Your task to perform on an android device: Add "duracell triple a" to the cart on costco Image 0: 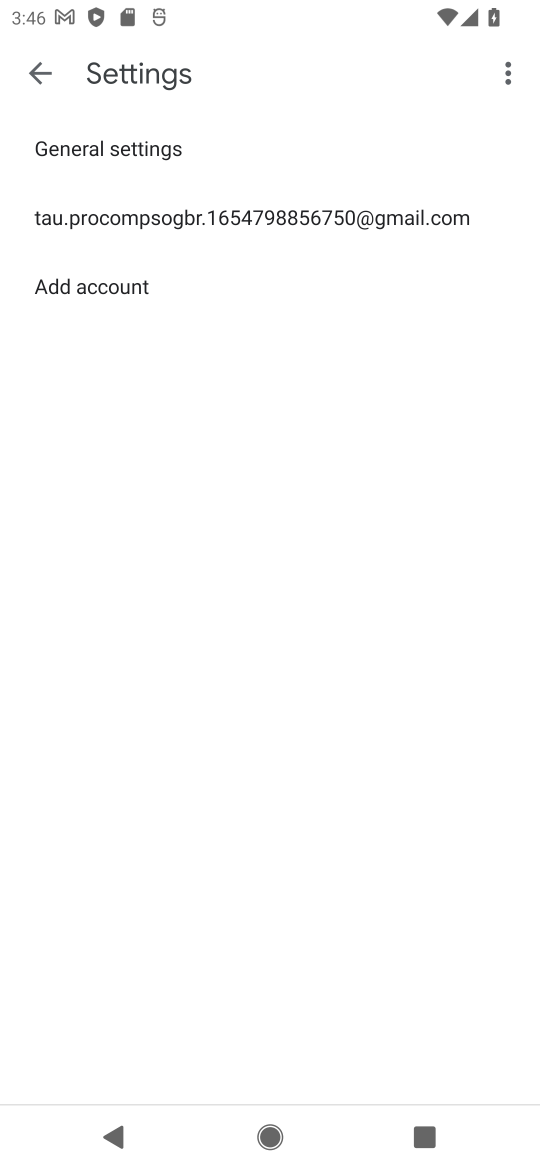
Step 0: press home button
Your task to perform on an android device: Add "duracell triple a" to the cart on costco Image 1: 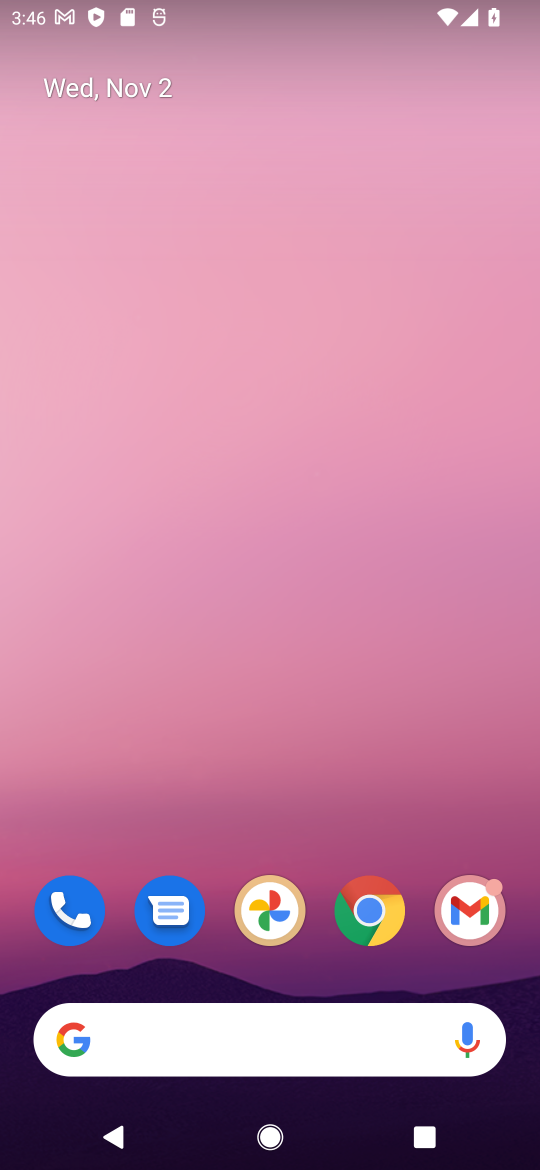
Step 1: click (368, 919)
Your task to perform on an android device: Add "duracell triple a" to the cart on costco Image 2: 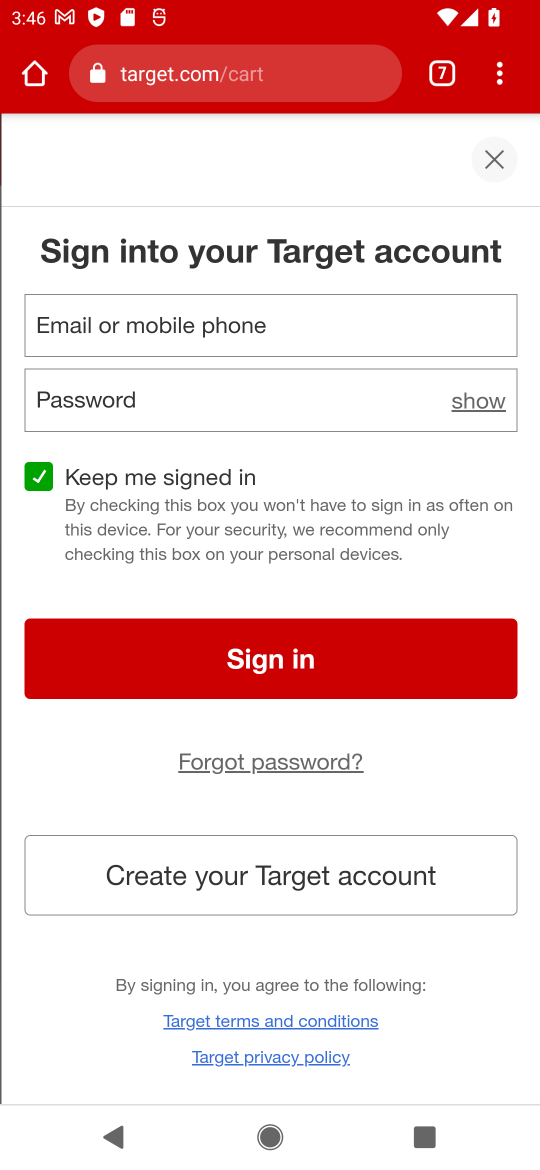
Step 2: click (448, 81)
Your task to perform on an android device: Add "duracell triple a" to the cart on costco Image 3: 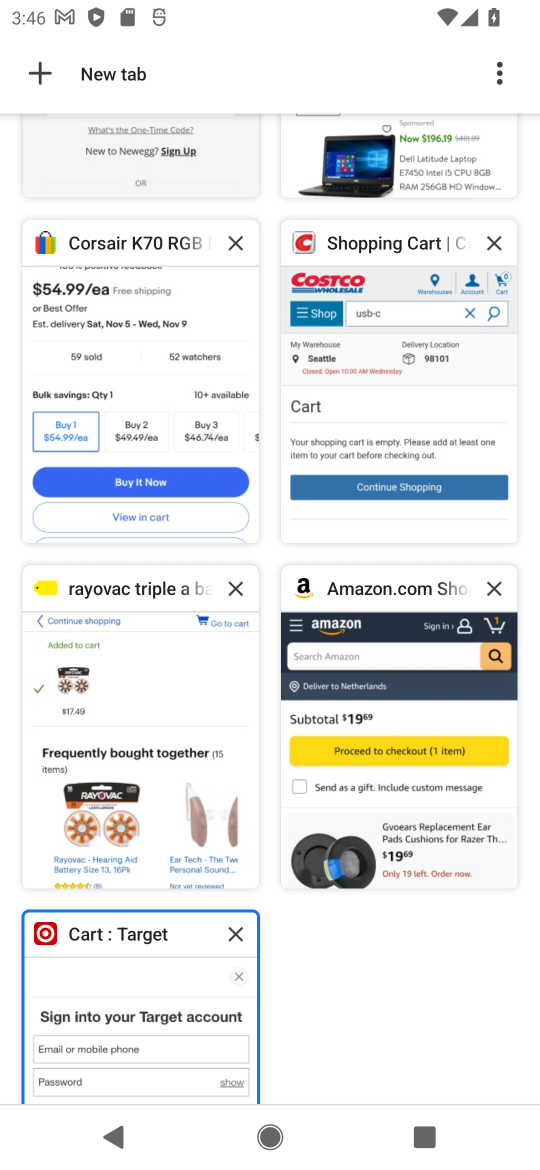
Step 3: click (373, 310)
Your task to perform on an android device: Add "duracell triple a" to the cart on costco Image 4: 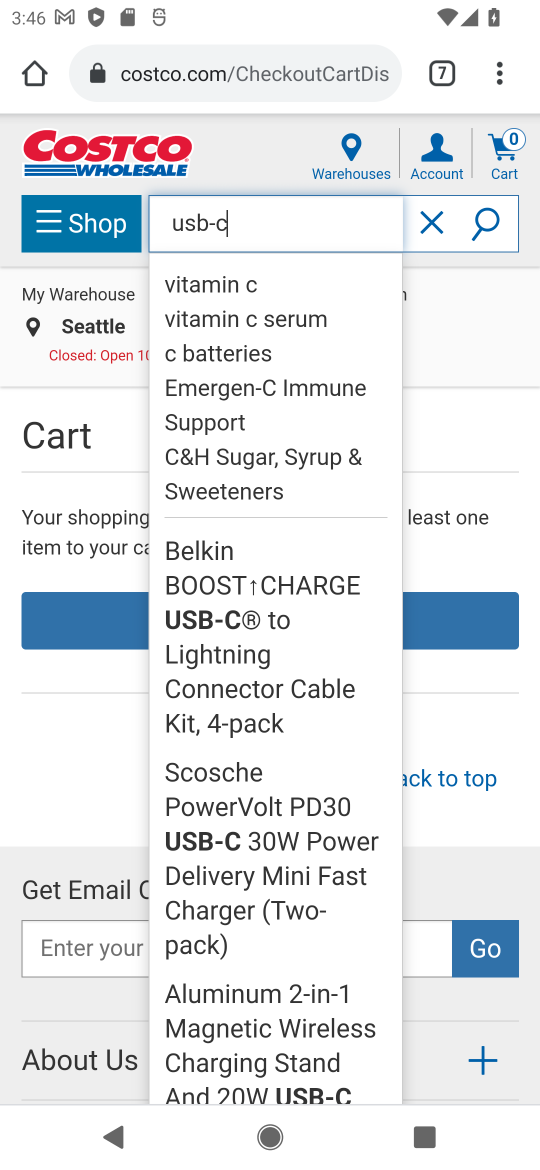
Step 4: click (431, 230)
Your task to perform on an android device: Add "duracell triple a" to the cart on costco Image 5: 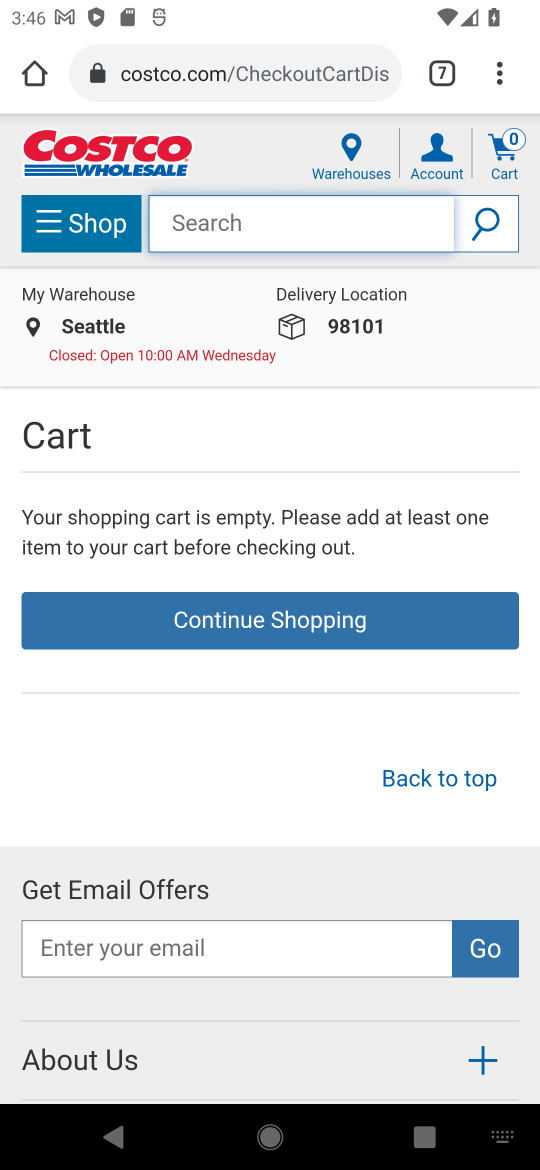
Step 5: type "duracell triple a battery"
Your task to perform on an android device: Add "duracell triple a" to the cart on costco Image 6: 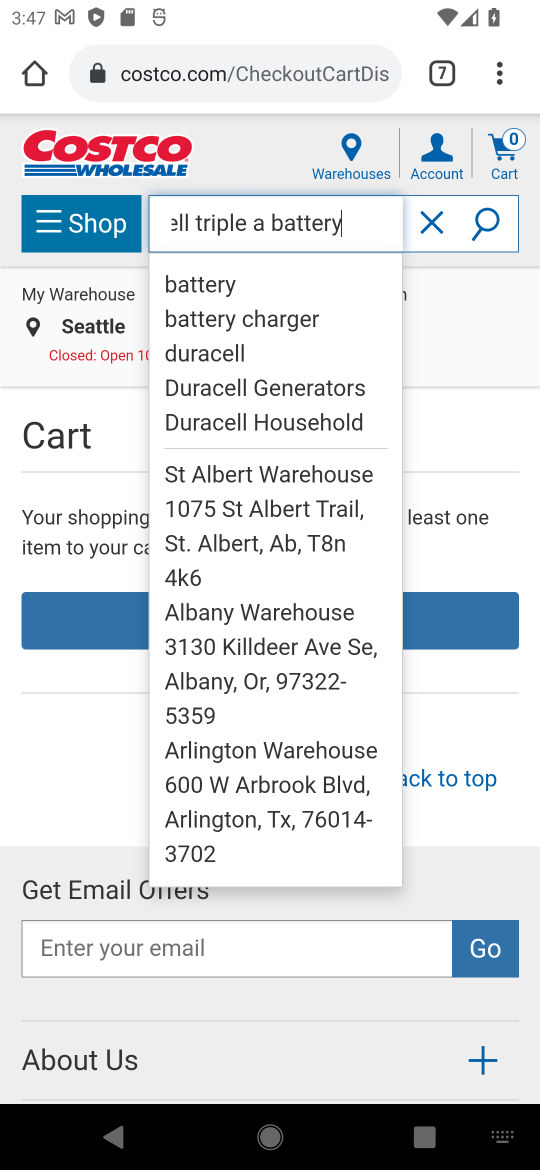
Step 6: click (205, 346)
Your task to perform on an android device: Add "duracell triple a" to the cart on costco Image 7: 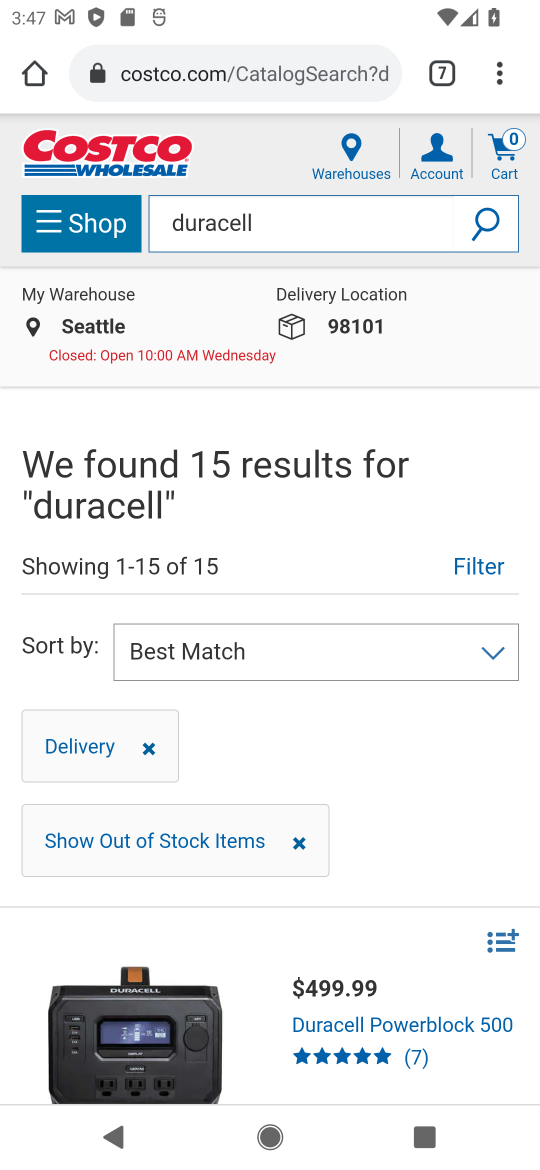
Step 7: drag from (387, 924) to (435, 338)
Your task to perform on an android device: Add "duracell triple a" to the cart on costco Image 8: 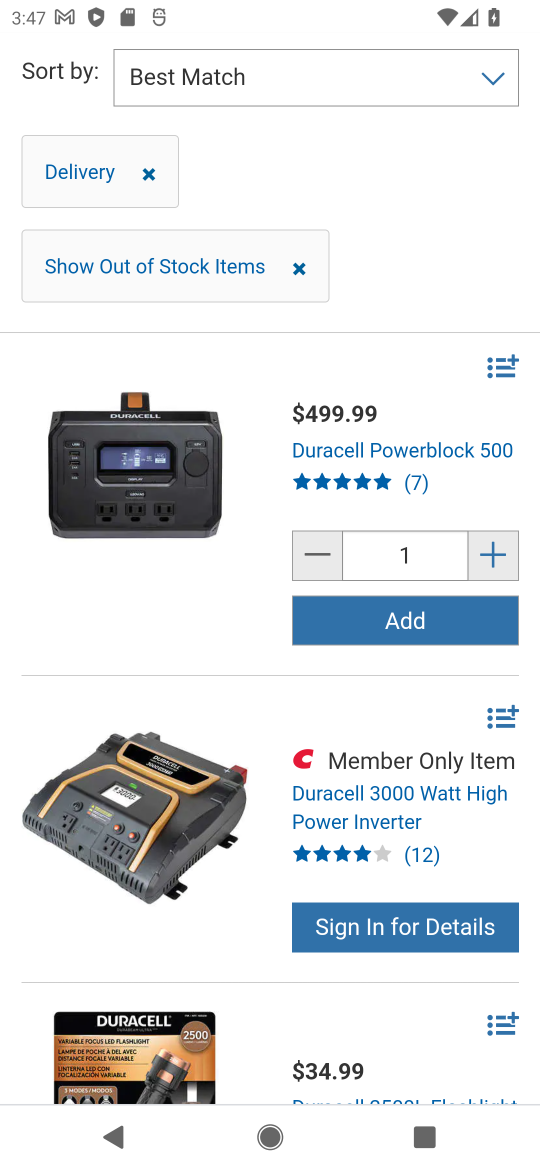
Step 8: drag from (342, 1070) to (341, 306)
Your task to perform on an android device: Add "duracell triple a" to the cart on costco Image 9: 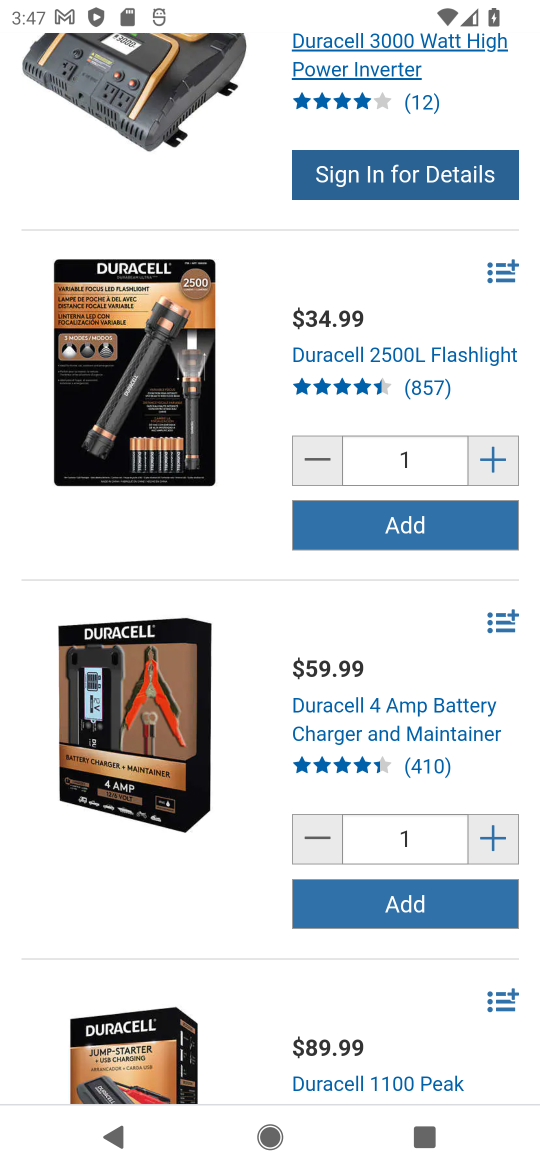
Step 9: click (419, 720)
Your task to perform on an android device: Add "duracell triple a" to the cart on costco Image 10: 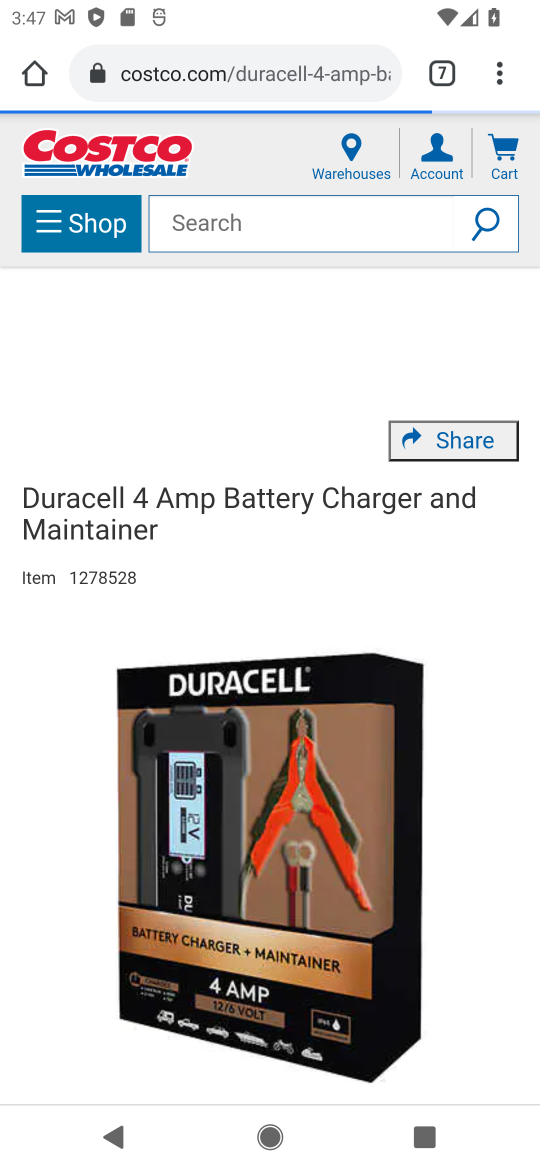
Step 10: click (400, 904)
Your task to perform on an android device: Add "duracell triple a" to the cart on costco Image 11: 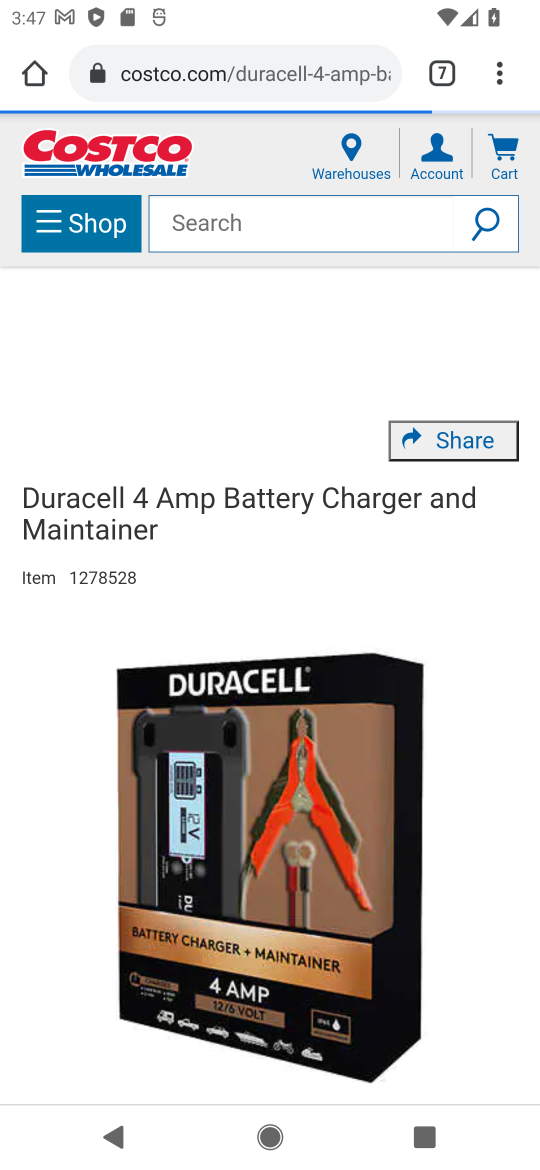
Step 11: drag from (453, 864) to (407, 125)
Your task to perform on an android device: Add "duracell triple a" to the cart on costco Image 12: 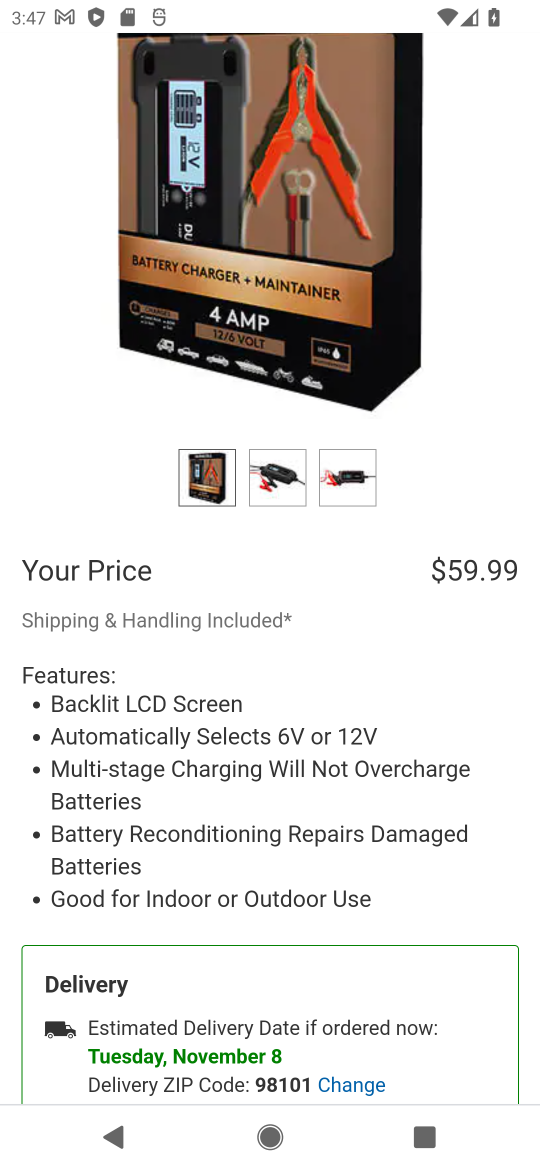
Step 12: drag from (315, 888) to (349, 16)
Your task to perform on an android device: Add "duracell triple a" to the cart on costco Image 13: 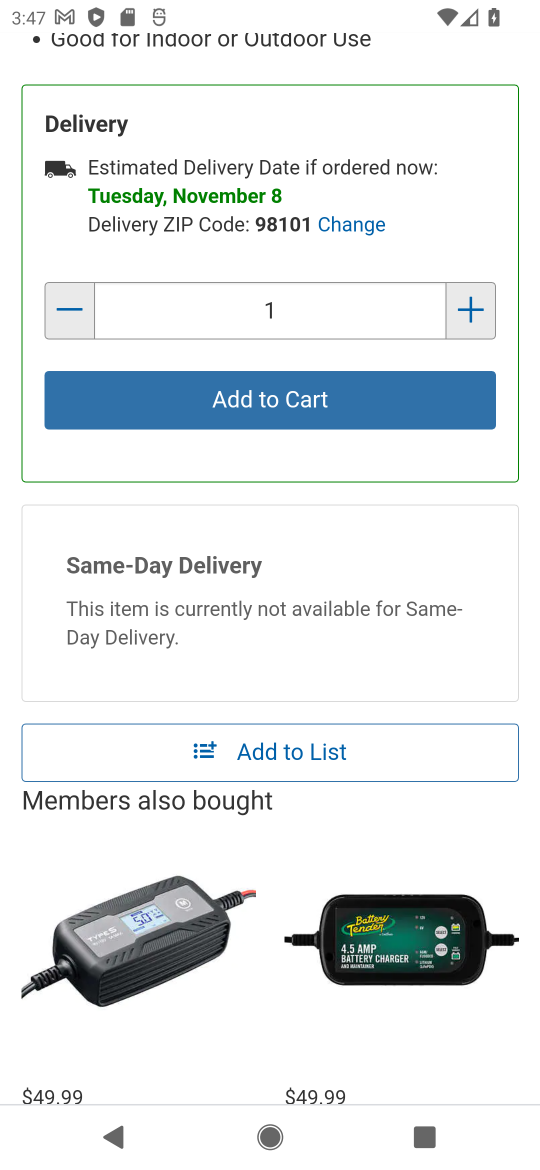
Step 13: click (345, 410)
Your task to perform on an android device: Add "duracell triple a" to the cart on costco Image 14: 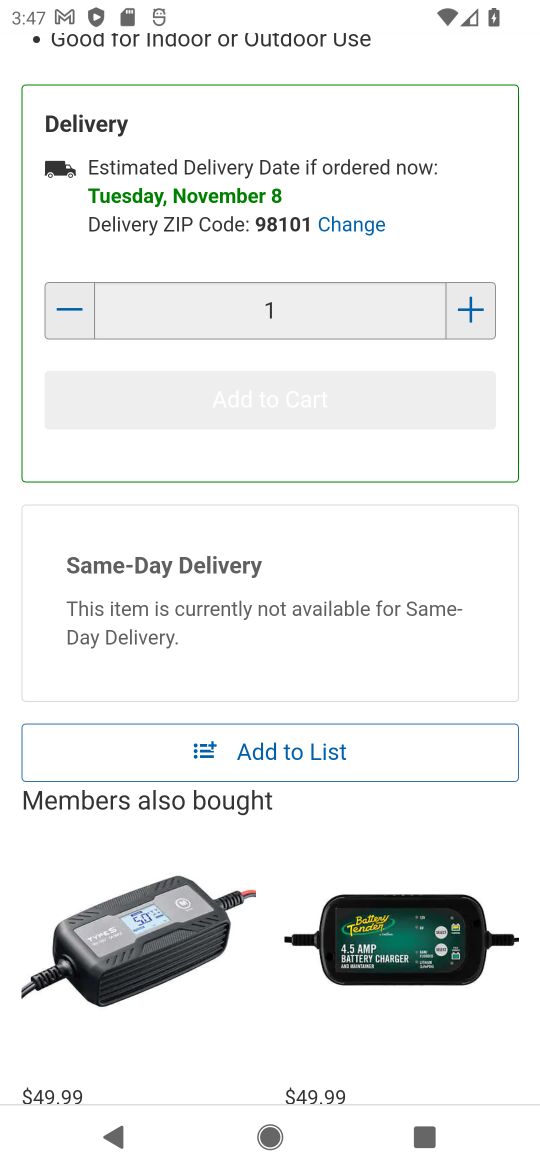
Step 14: task complete